Your task to perform on an android device: Open the Play Movies app and select the watchlist tab. Image 0: 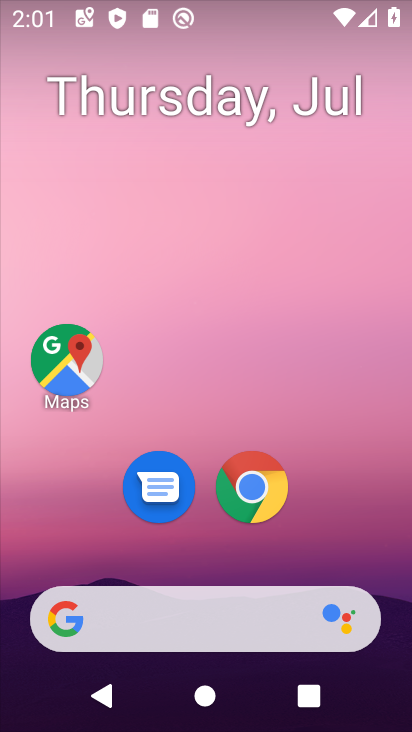
Step 0: drag from (348, 543) to (345, 192)
Your task to perform on an android device: Open the Play Movies app and select the watchlist tab. Image 1: 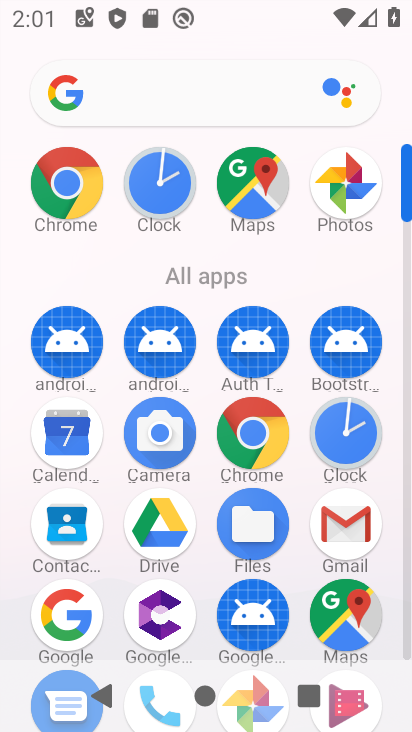
Step 1: drag from (390, 551) to (390, 448)
Your task to perform on an android device: Open the Play Movies app and select the watchlist tab. Image 2: 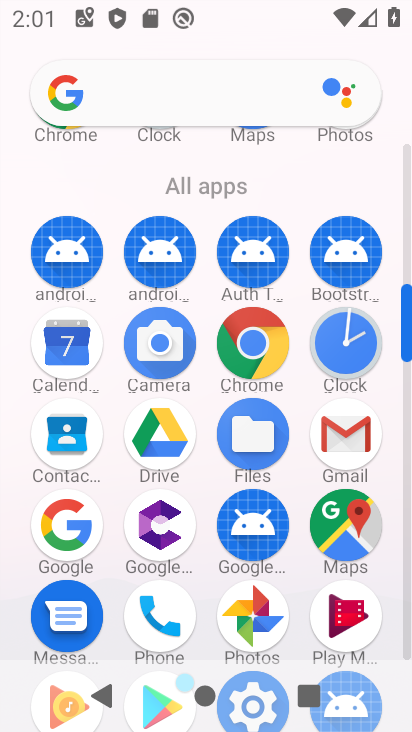
Step 2: drag from (388, 588) to (386, 424)
Your task to perform on an android device: Open the Play Movies app and select the watchlist tab. Image 3: 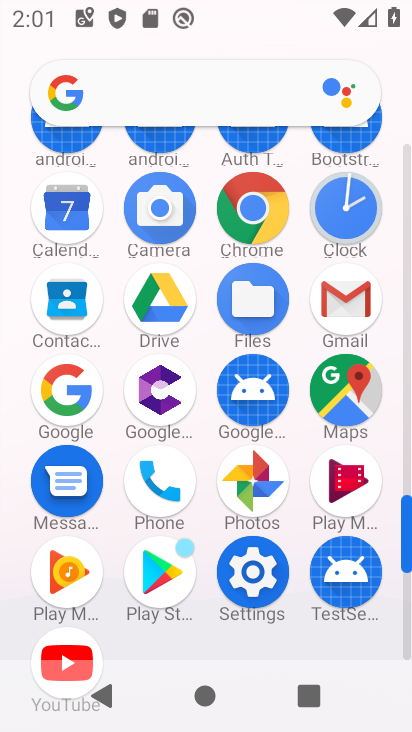
Step 3: click (340, 480)
Your task to perform on an android device: Open the Play Movies app and select the watchlist tab. Image 4: 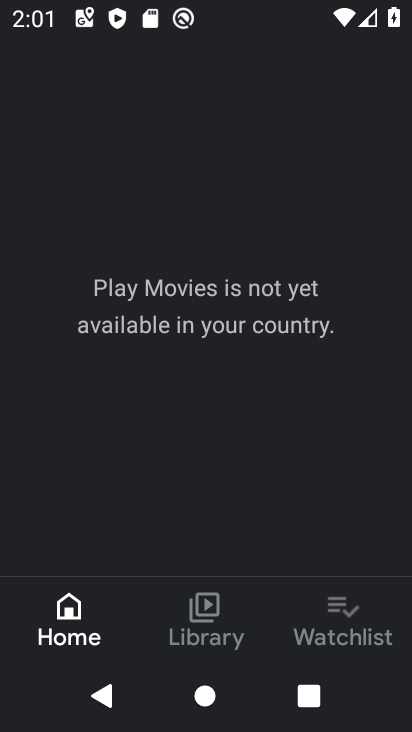
Step 4: click (337, 618)
Your task to perform on an android device: Open the Play Movies app and select the watchlist tab. Image 5: 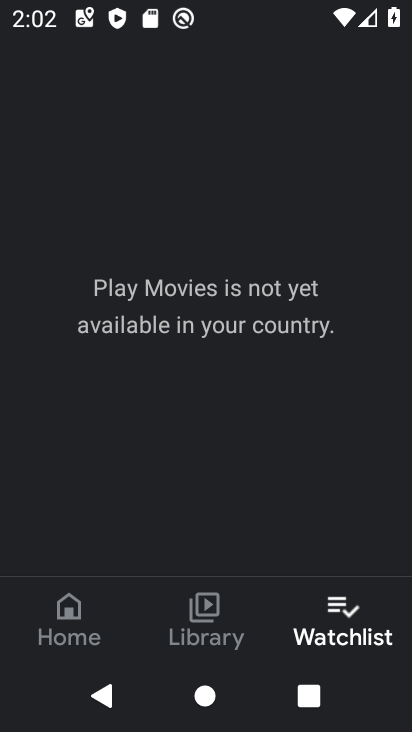
Step 5: task complete